Your task to perform on an android device: turn vacation reply on in the gmail app Image 0: 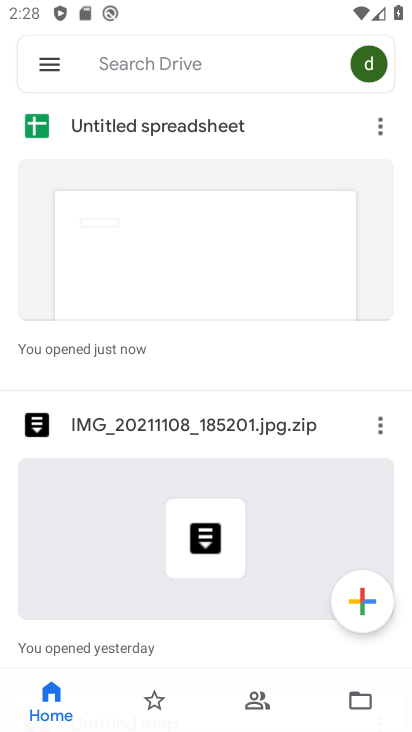
Step 0: press home button
Your task to perform on an android device: turn vacation reply on in the gmail app Image 1: 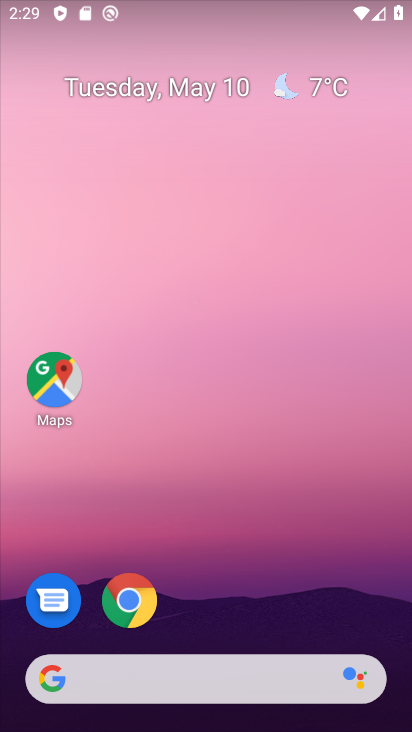
Step 1: drag from (203, 681) to (197, 214)
Your task to perform on an android device: turn vacation reply on in the gmail app Image 2: 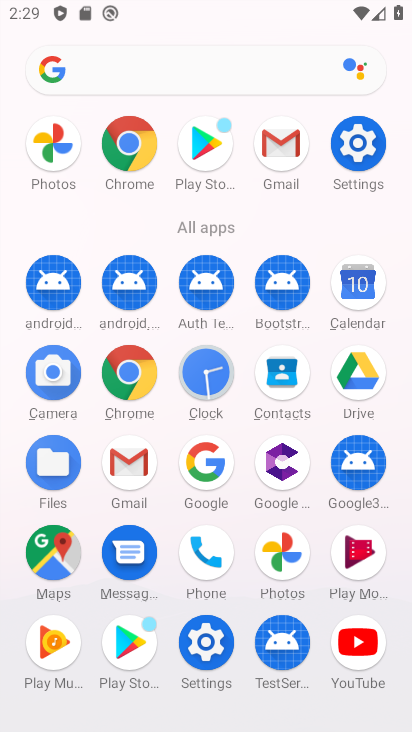
Step 2: click (124, 458)
Your task to perform on an android device: turn vacation reply on in the gmail app Image 3: 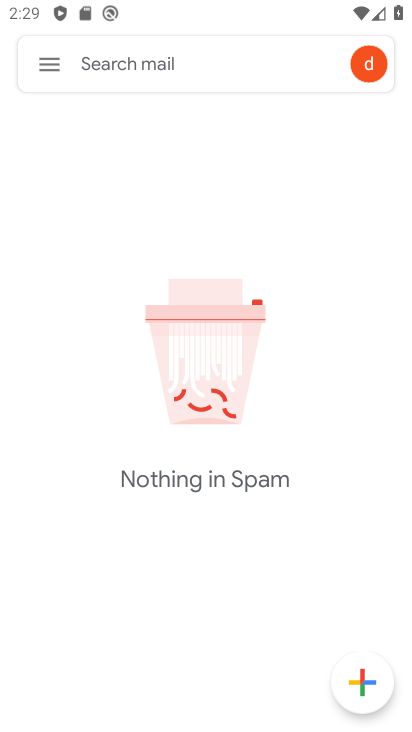
Step 3: click (53, 77)
Your task to perform on an android device: turn vacation reply on in the gmail app Image 4: 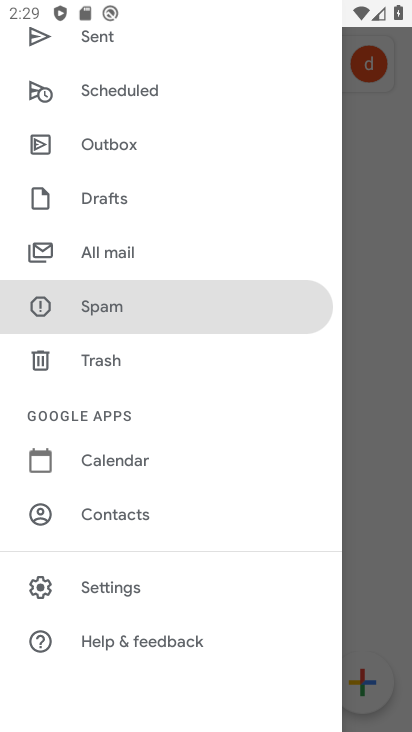
Step 4: click (127, 582)
Your task to perform on an android device: turn vacation reply on in the gmail app Image 5: 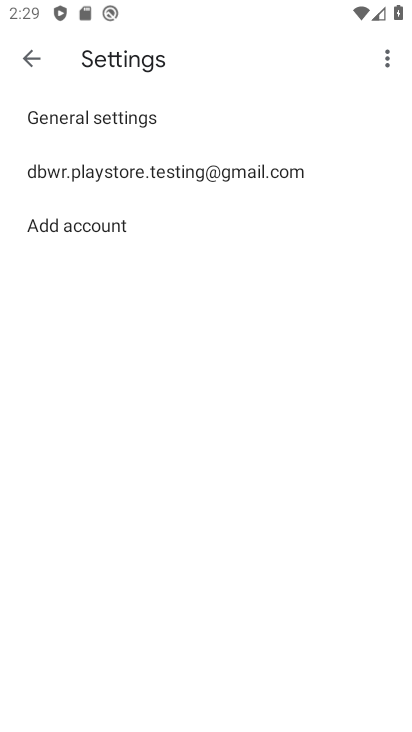
Step 5: click (159, 171)
Your task to perform on an android device: turn vacation reply on in the gmail app Image 6: 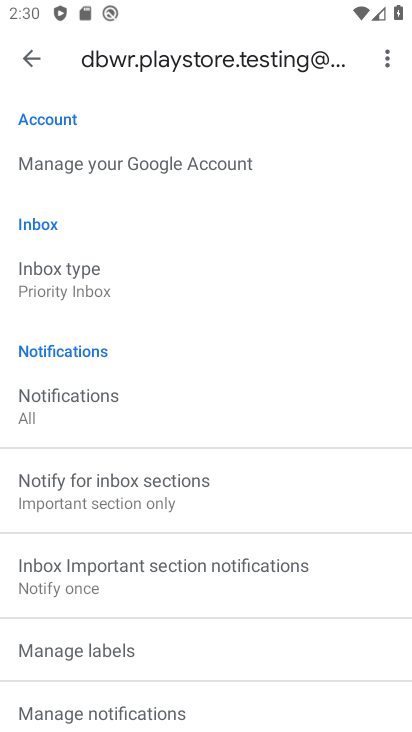
Step 6: drag from (134, 563) to (145, 181)
Your task to perform on an android device: turn vacation reply on in the gmail app Image 7: 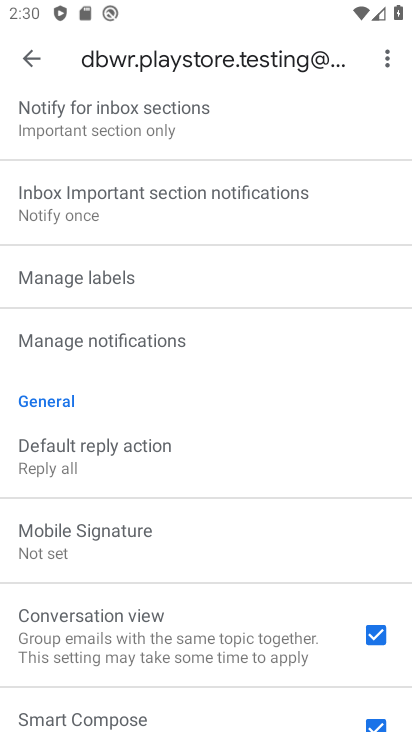
Step 7: drag from (129, 446) to (124, 100)
Your task to perform on an android device: turn vacation reply on in the gmail app Image 8: 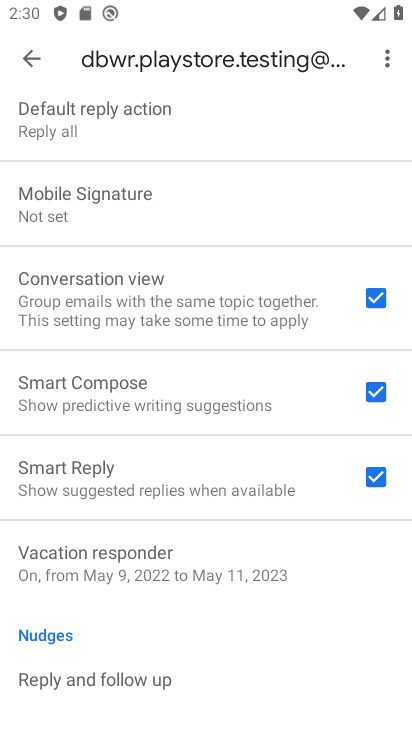
Step 8: click (151, 555)
Your task to perform on an android device: turn vacation reply on in the gmail app Image 9: 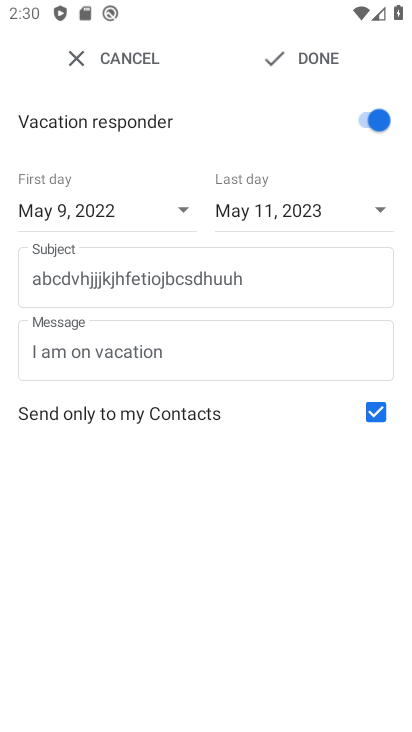
Step 9: click (297, 55)
Your task to perform on an android device: turn vacation reply on in the gmail app Image 10: 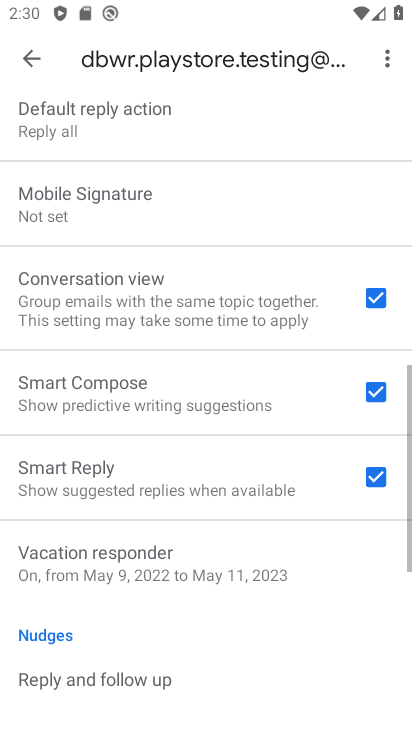
Step 10: task complete